Your task to perform on an android device: Go to location settings Image 0: 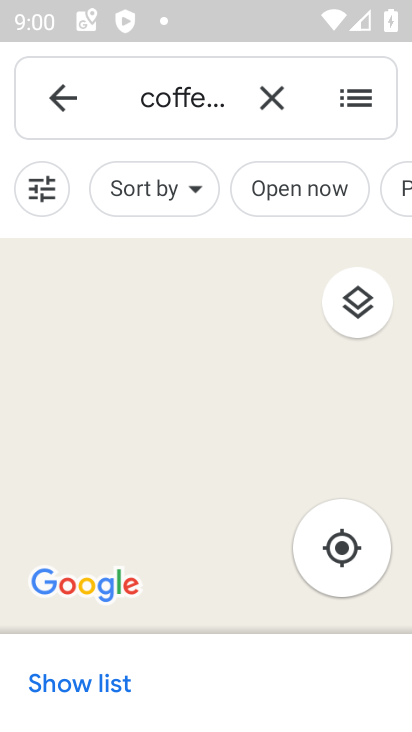
Step 0: press home button
Your task to perform on an android device: Go to location settings Image 1: 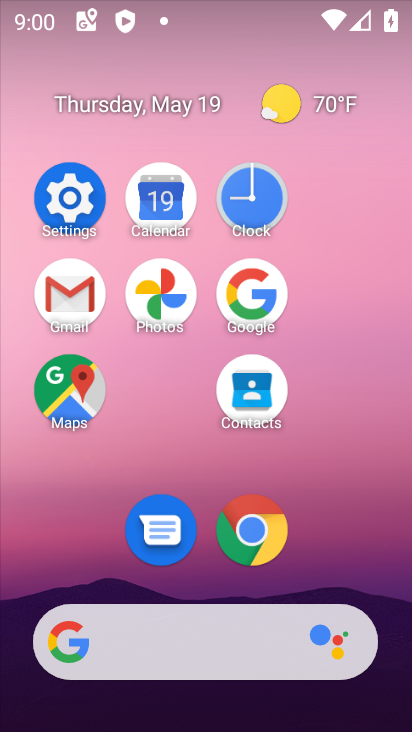
Step 1: click (88, 195)
Your task to perform on an android device: Go to location settings Image 2: 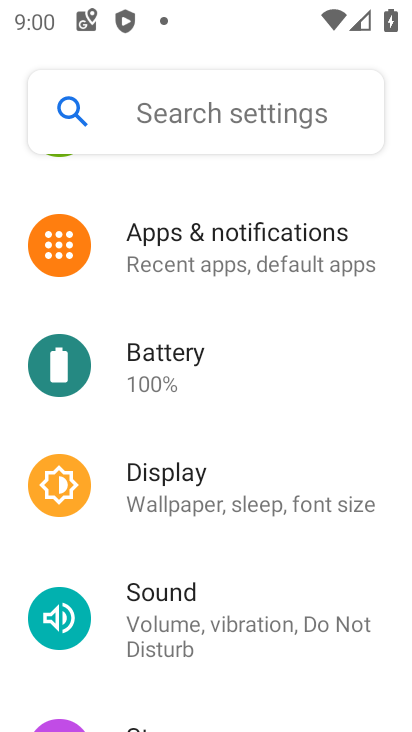
Step 2: drag from (234, 551) to (243, 216)
Your task to perform on an android device: Go to location settings Image 3: 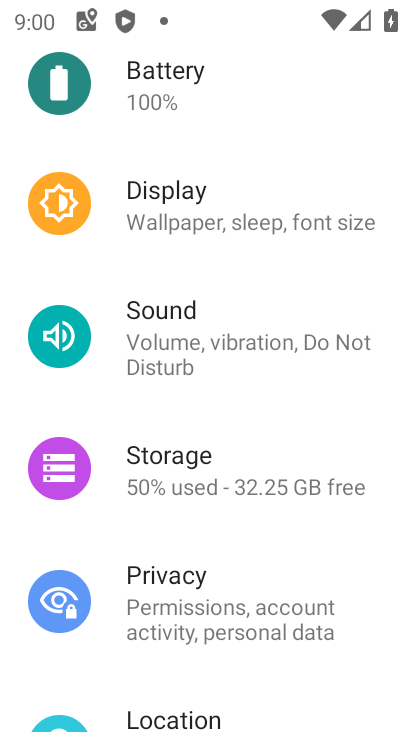
Step 3: click (206, 704)
Your task to perform on an android device: Go to location settings Image 4: 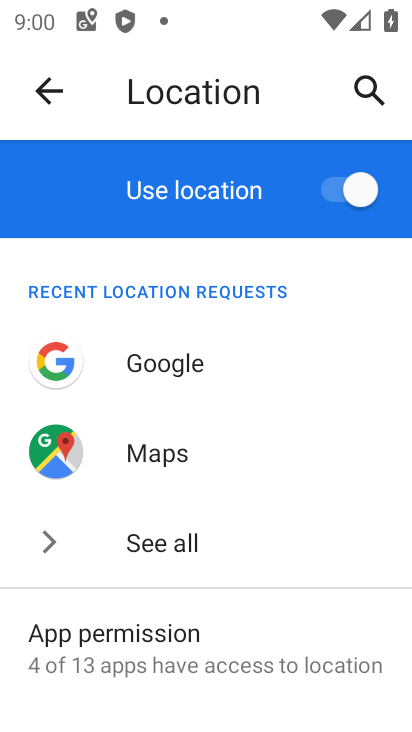
Step 4: task complete